Your task to perform on an android device: What's the weather today? Image 0: 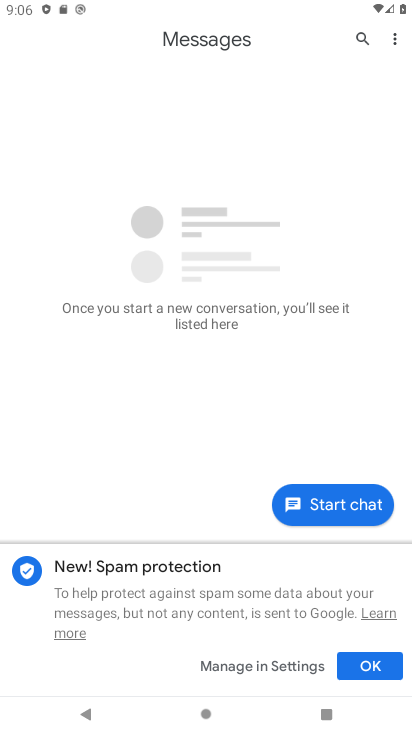
Step 0: press back button
Your task to perform on an android device: What's the weather today? Image 1: 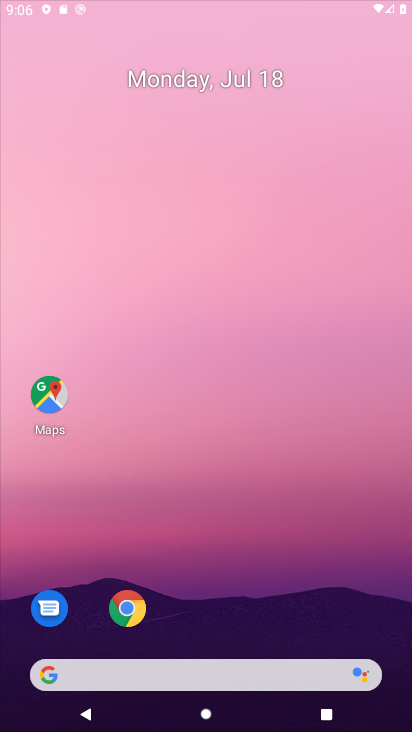
Step 1: press back button
Your task to perform on an android device: What's the weather today? Image 2: 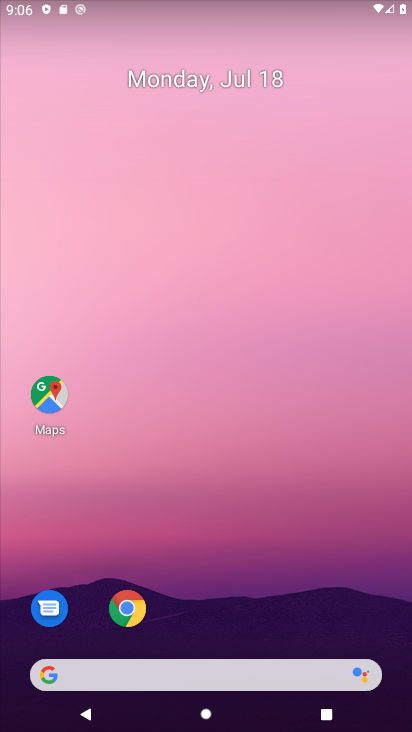
Step 2: drag from (46, 236) to (390, 316)
Your task to perform on an android device: What's the weather today? Image 3: 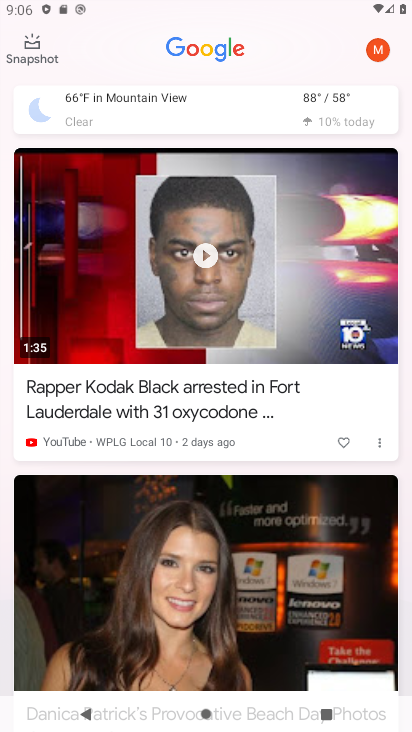
Step 3: click (245, 106)
Your task to perform on an android device: What's the weather today? Image 4: 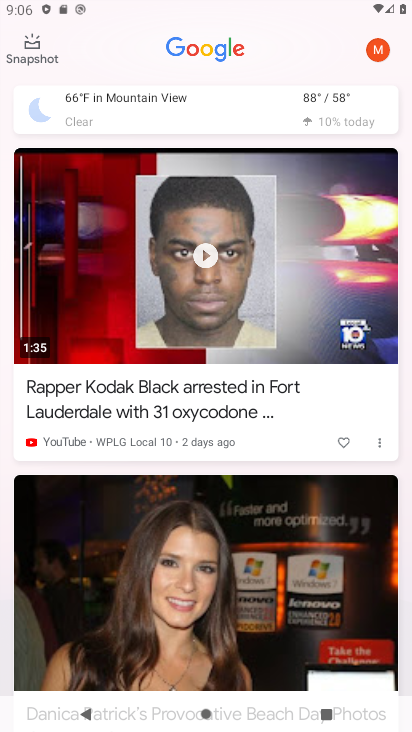
Step 4: click (248, 103)
Your task to perform on an android device: What's the weather today? Image 5: 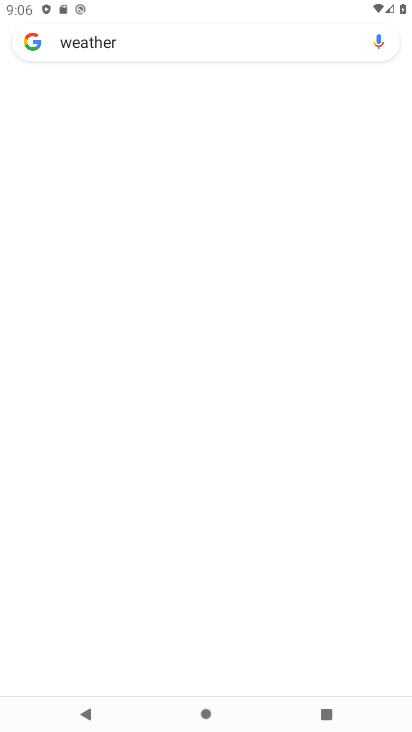
Step 5: click (185, 118)
Your task to perform on an android device: What's the weather today? Image 6: 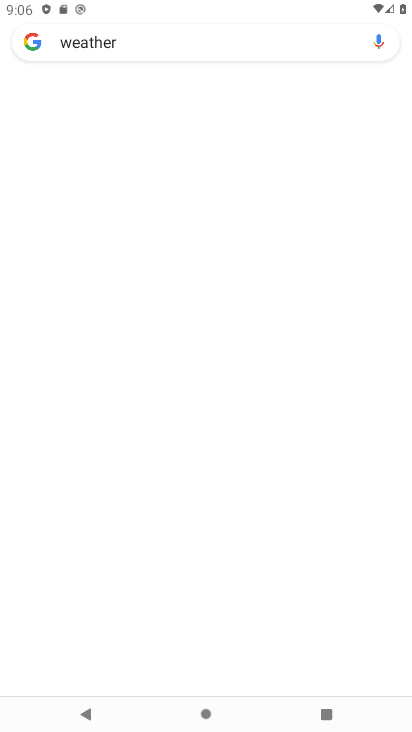
Step 6: click (183, 119)
Your task to perform on an android device: What's the weather today? Image 7: 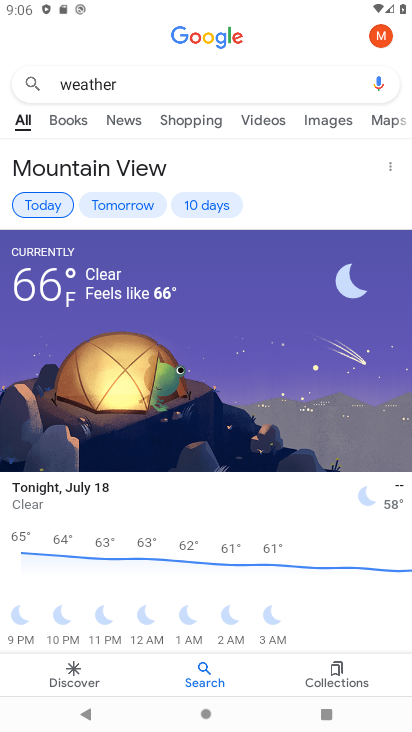
Step 7: task complete